Your task to perform on an android device: What's the news this morning? Image 0: 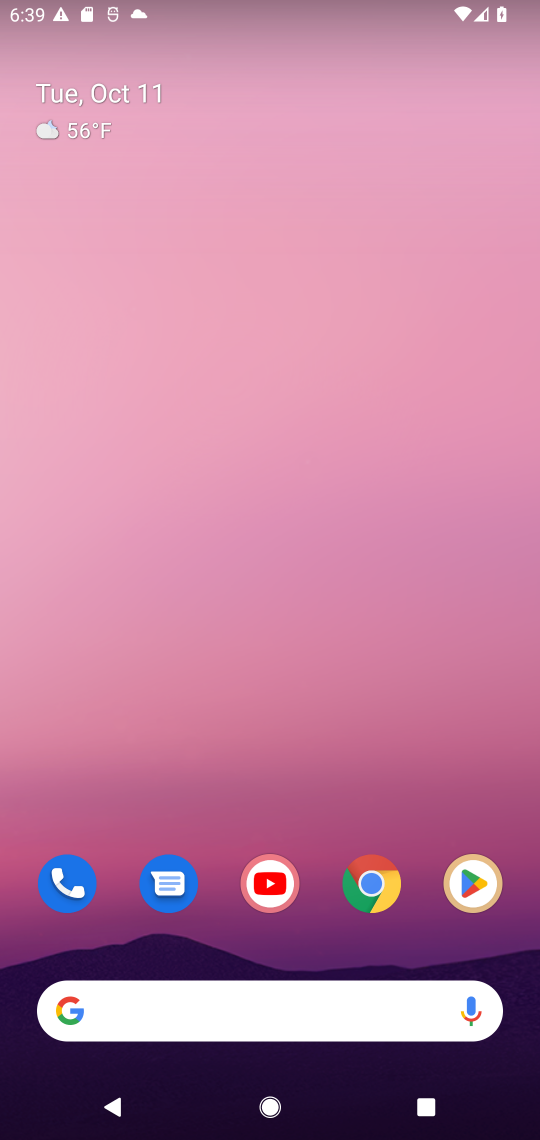
Step 0: drag from (358, 843) to (471, 65)
Your task to perform on an android device: What's the news this morning? Image 1: 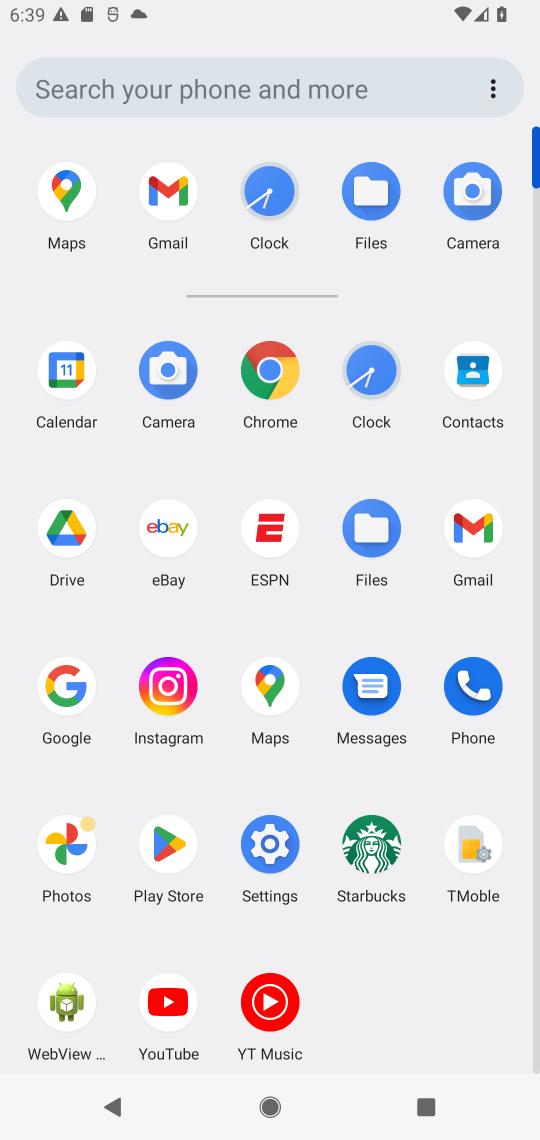
Step 1: click (275, 372)
Your task to perform on an android device: What's the news this morning? Image 2: 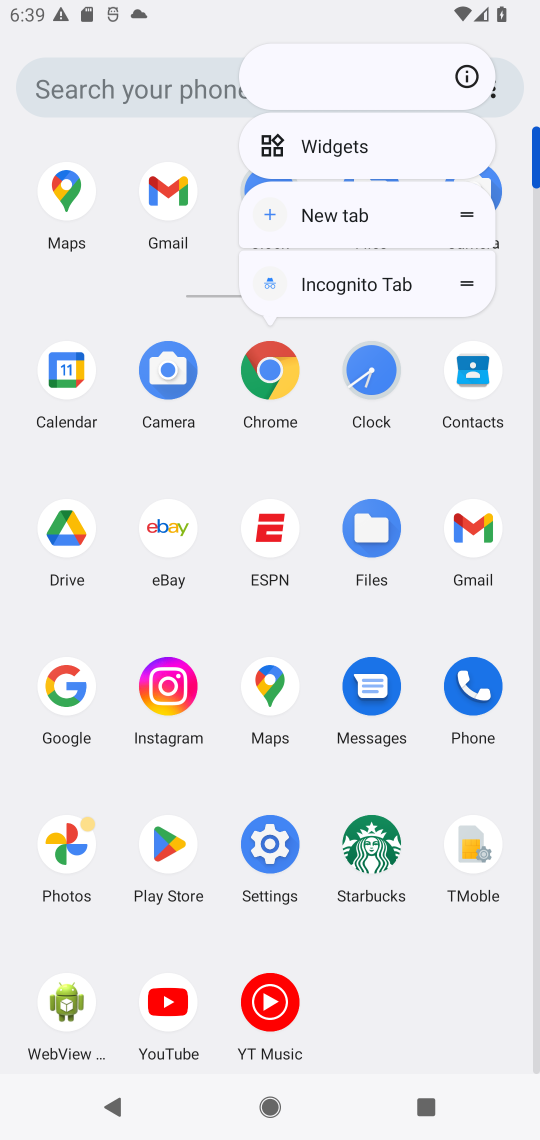
Step 2: click (271, 372)
Your task to perform on an android device: What's the news this morning? Image 3: 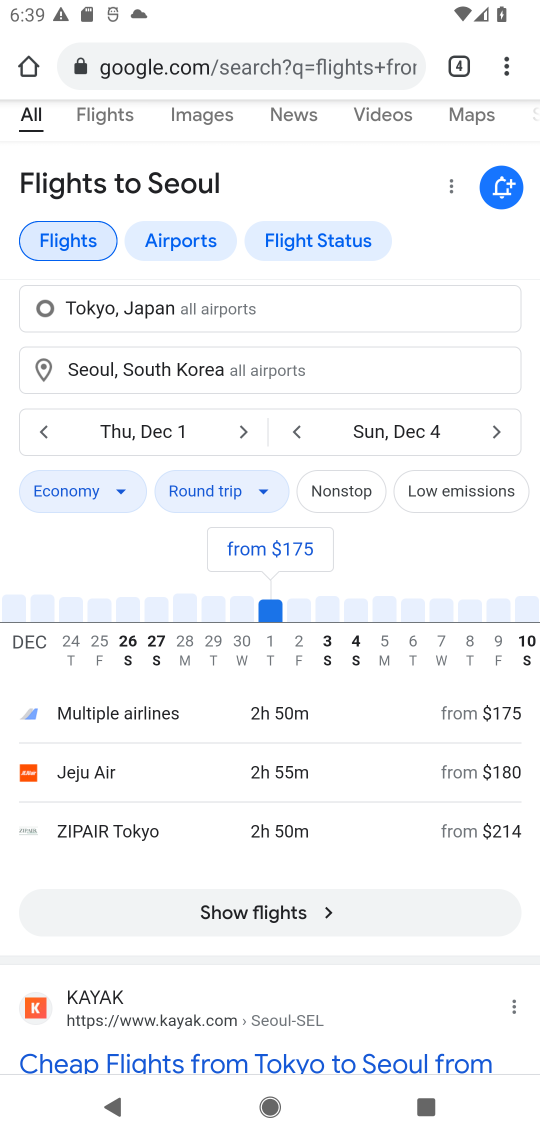
Step 3: click (231, 63)
Your task to perform on an android device: What's the news this morning? Image 4: 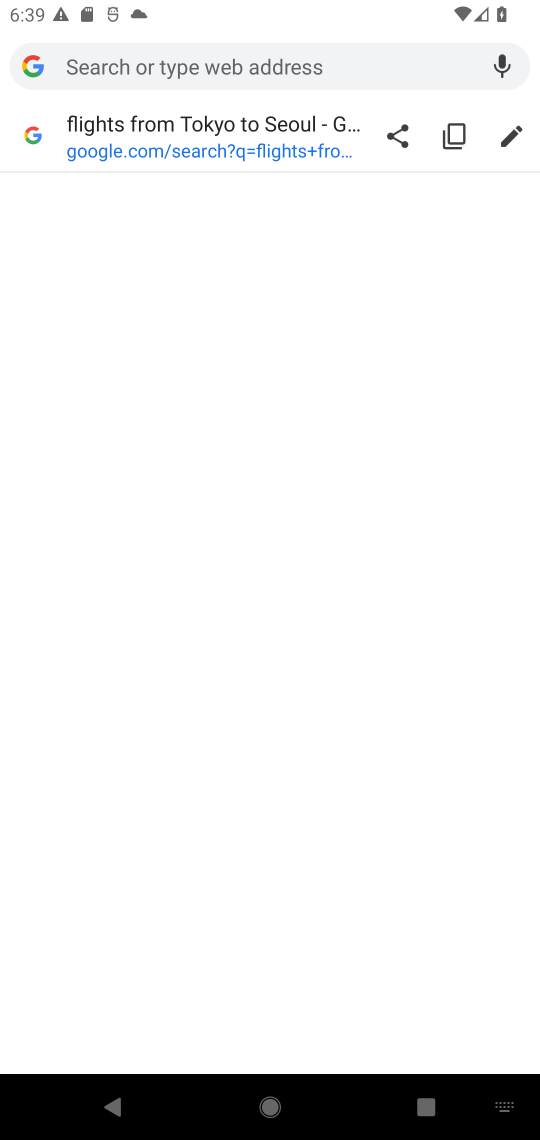
Step 4: type "What's the  news this morning?"
Your task to perform on an android device: What's the news this morning? Image 5: 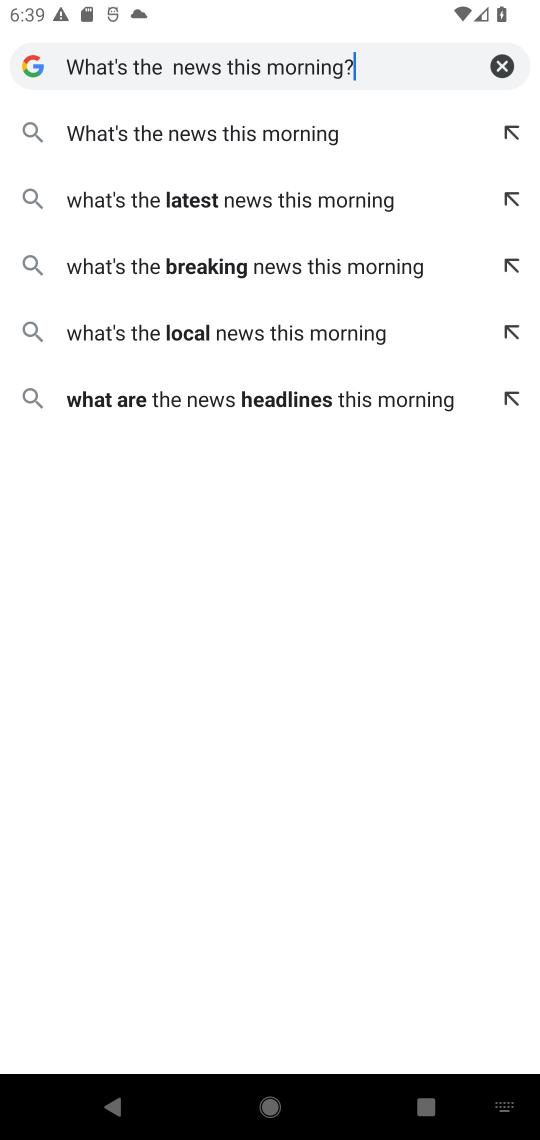
Step 5: press enter
Your task to perform on an android device: What's the news this morning? Image 6: 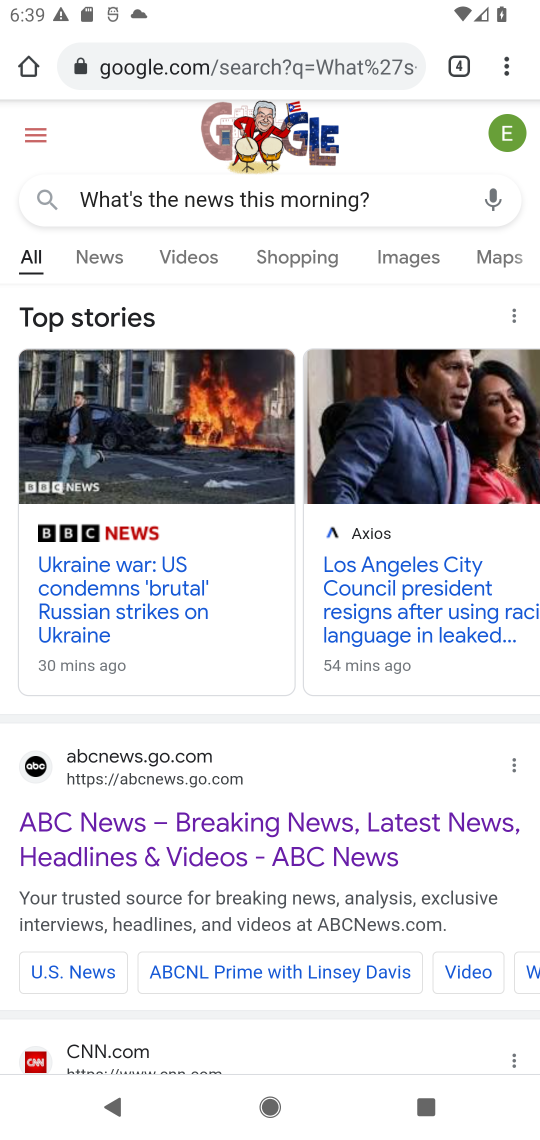
Step 6: drag from (306, 610) to (0, 636)
Your task to perform on an android device: What's the news this morning? Image 7: 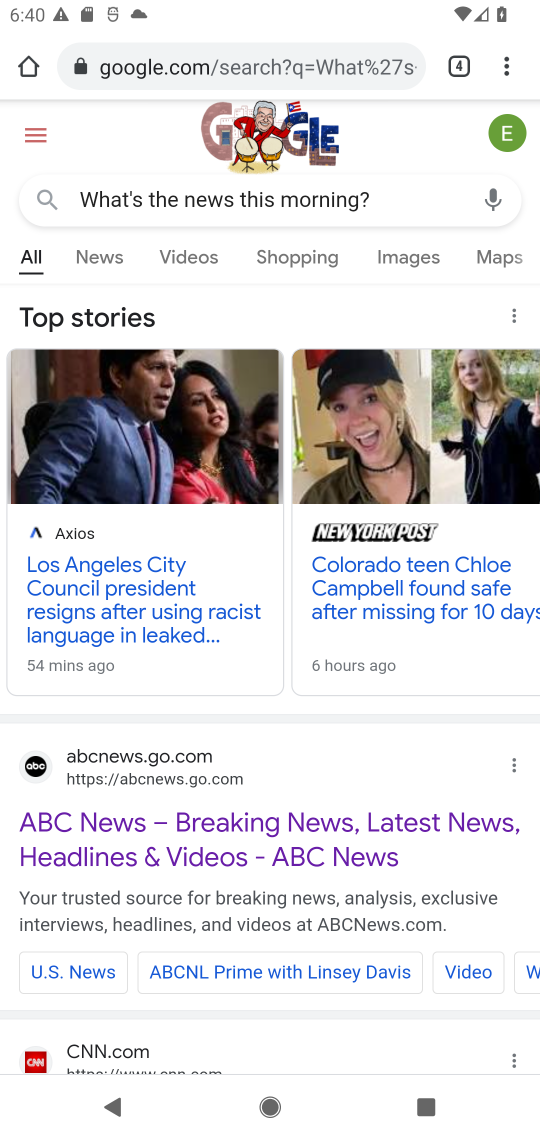
Step 7: drag from (376, 608) to (431, 279)
Your task to perform on an android device: What's the news this morning? Image 8: 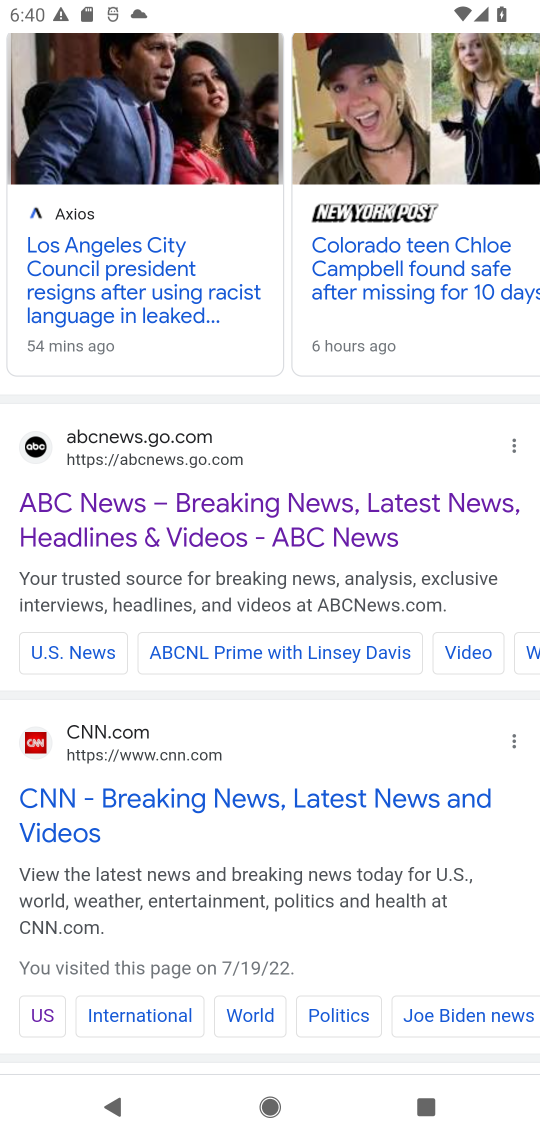
Step 8: click (274, 541)
Your task to perform on an android device: What's the news this morning? Image 9: 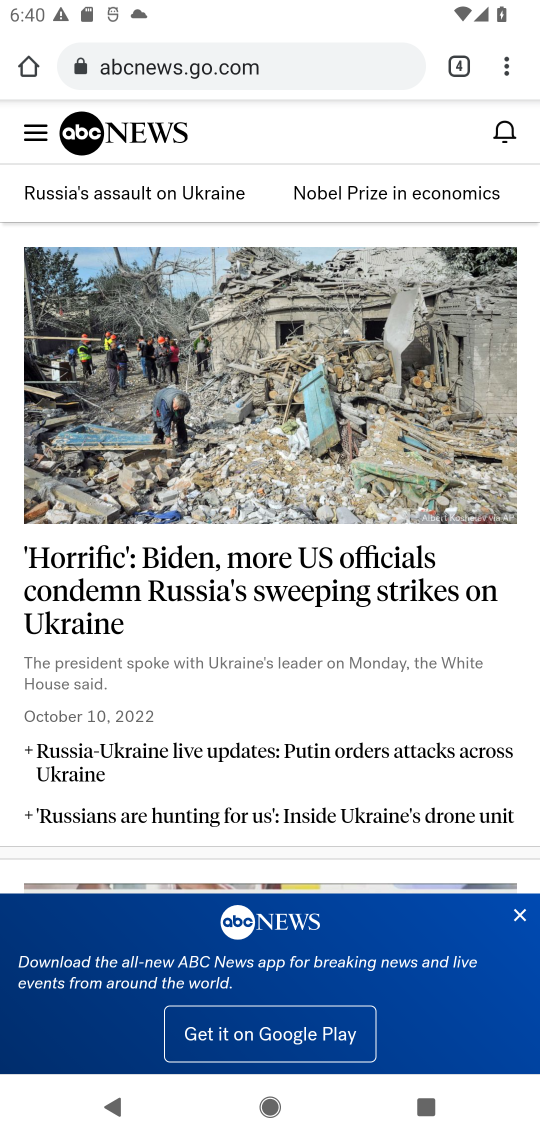
Step 9: task complete